Your task to perform on an android device: turn notification dots on Image 0: 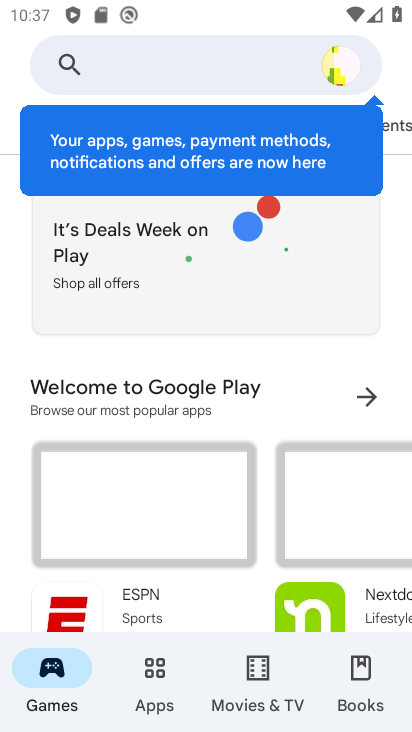
Step 0: press home button
Your task to perform on an android device: turn notification dots on Image 1: 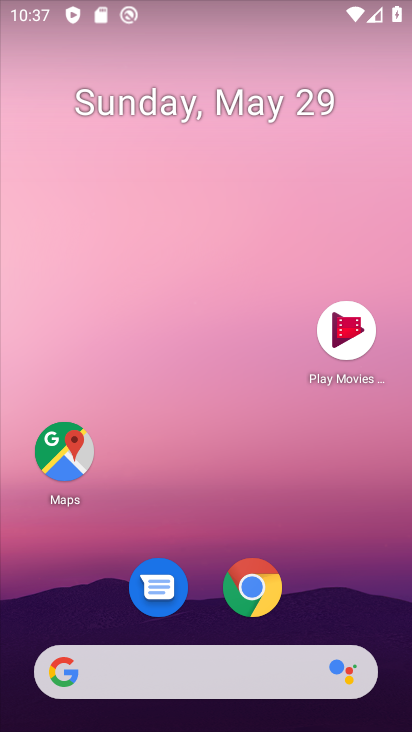
Step 1: drag from (350, 577) to (54, 8)
Your task to perform on an android device: turn notification dots on Image 2: 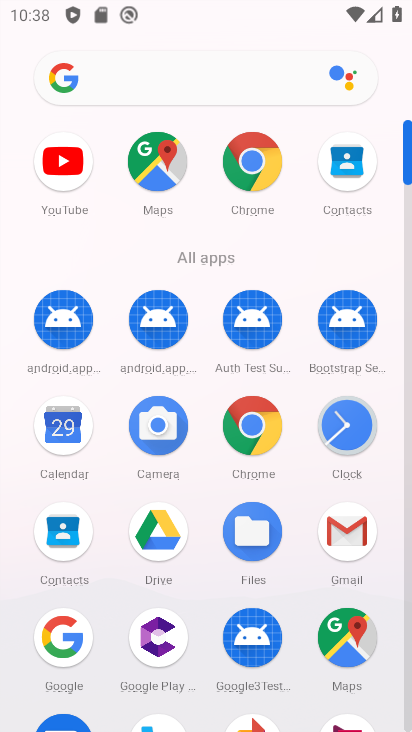
Step 2: click (409, 681)
Your task to perform on an android device: turn notification dots on Image 3: 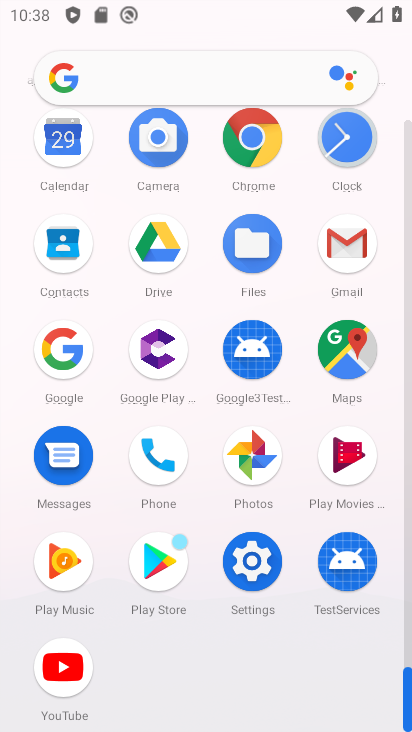
Step 3: click (257, 568)
Your task to perform on an android device: turn notification dots on Image 4: 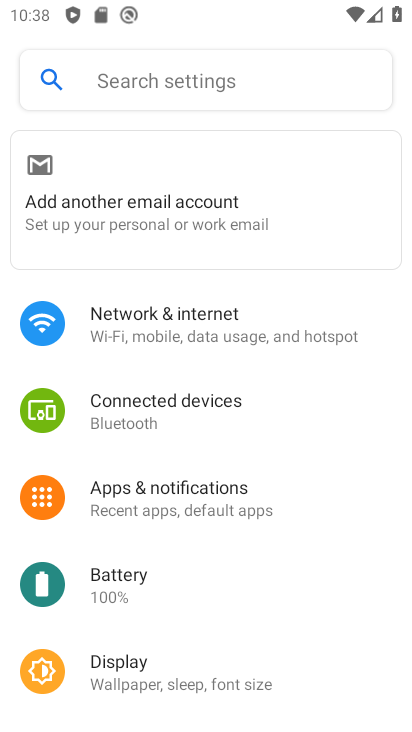
Step 4: click (222, 498)
Your task to perform on an android device: turn notification dots on Image 5: 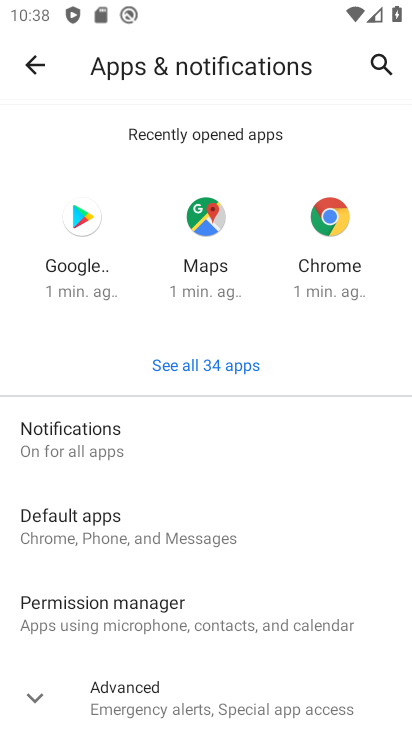
Step 5: click (201, 439)
Your task to perform on an android device: turn notification dots on Image 6: 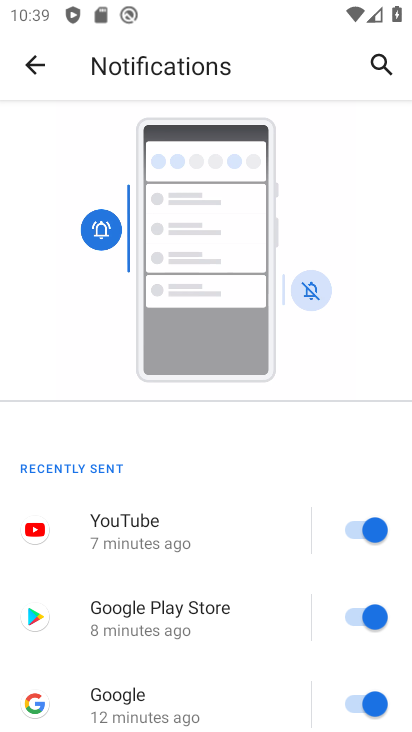
Step 6: drag from (226, 677) to (143, 276)
Your task to perform on an android device: turn notification dots on Image 7: 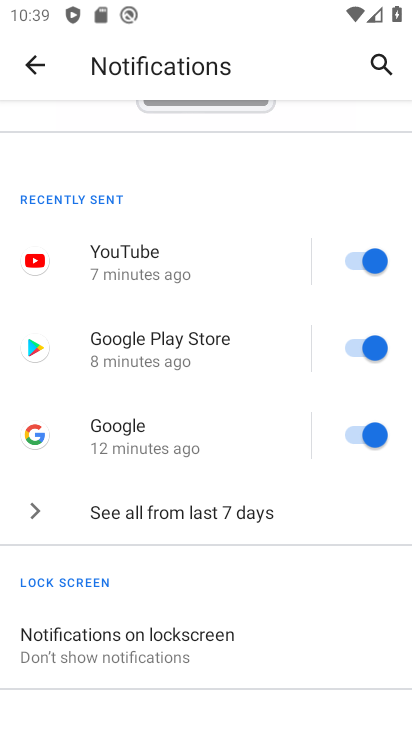
Step 7: drag from (190, 647) to (126, 233)
Your task to perform on an android device: turn notification dots on Image 8: 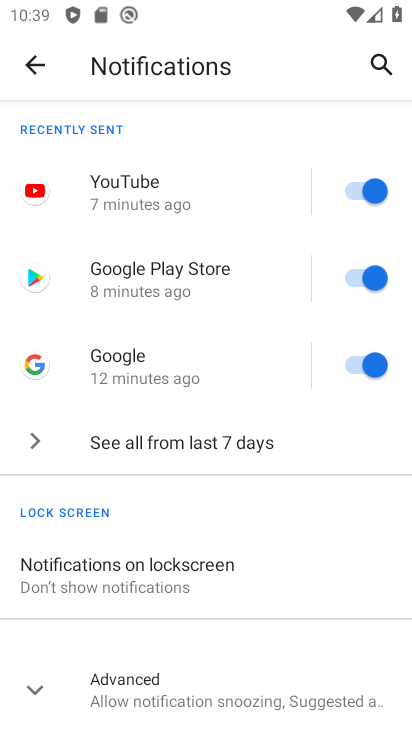
Step 8: click (227, 694)
Your task to perform on an android device: turn notification dots on Image 9: 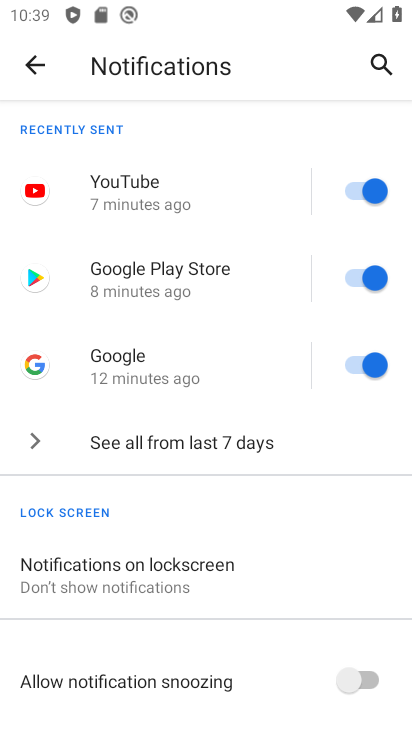
Step 9: task complete